Your task to perform on an android device: open app "Gmail" (install if not already installed) and enter user name: "undecidable@inbox.com" and password: "discouraging" Image 0: 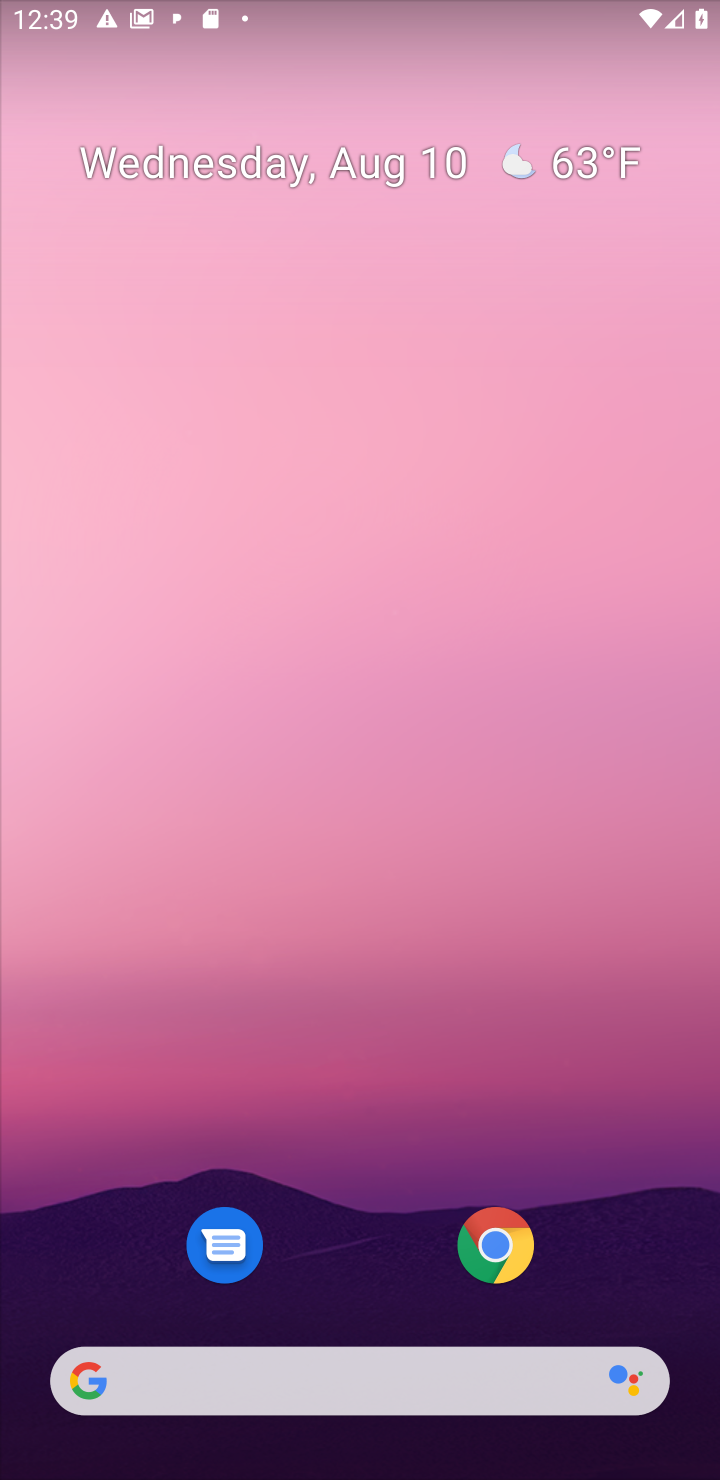
Step 0: drag from (356, 1328) to (456, 469)
Your task to perform on an android device: open app "Gmail" (install if not already installed) and enter user name: "undecidable@inbox.com" and password: "discouraging" Image 1: 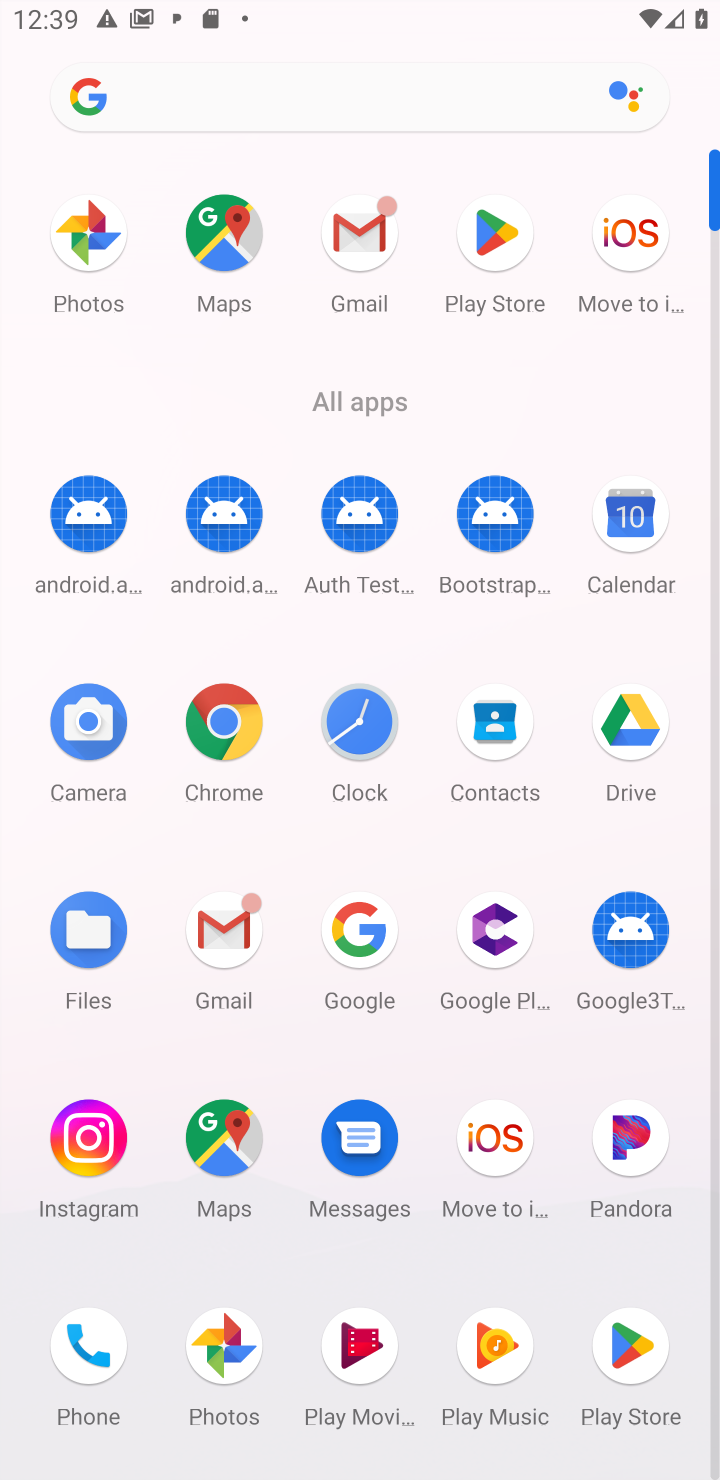
Step 1: click (372, 382)
Your task to perform on an android device: open app "Gmail" (install if not already installed) and enter user name: "undecidable@inbox.com" and password: "discouraging" Image 2: 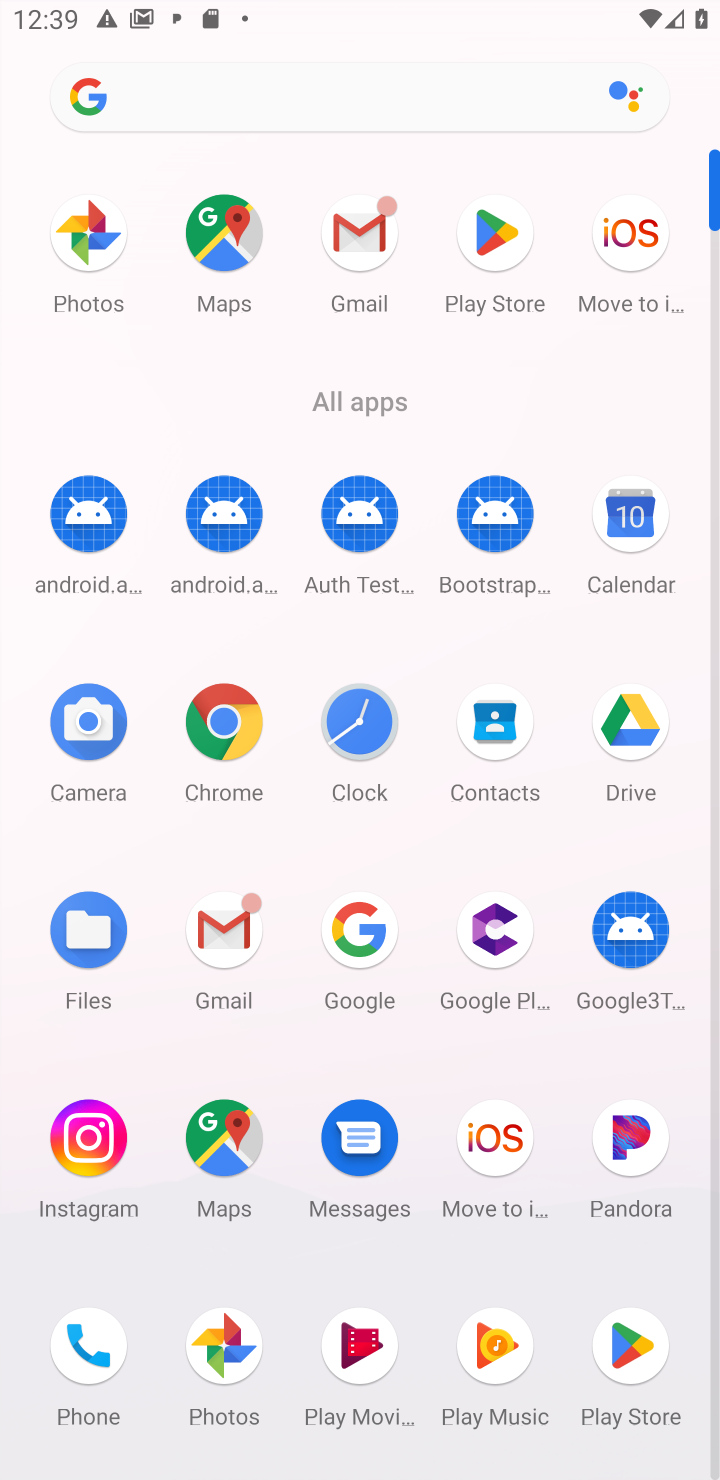
Step 2: click (348, 243)
Your task to perform on an android device: open app "Gmail" (install if not already installed) and enter user name: "undecidable@inbox.com" and password: "discouraging" Image 3: 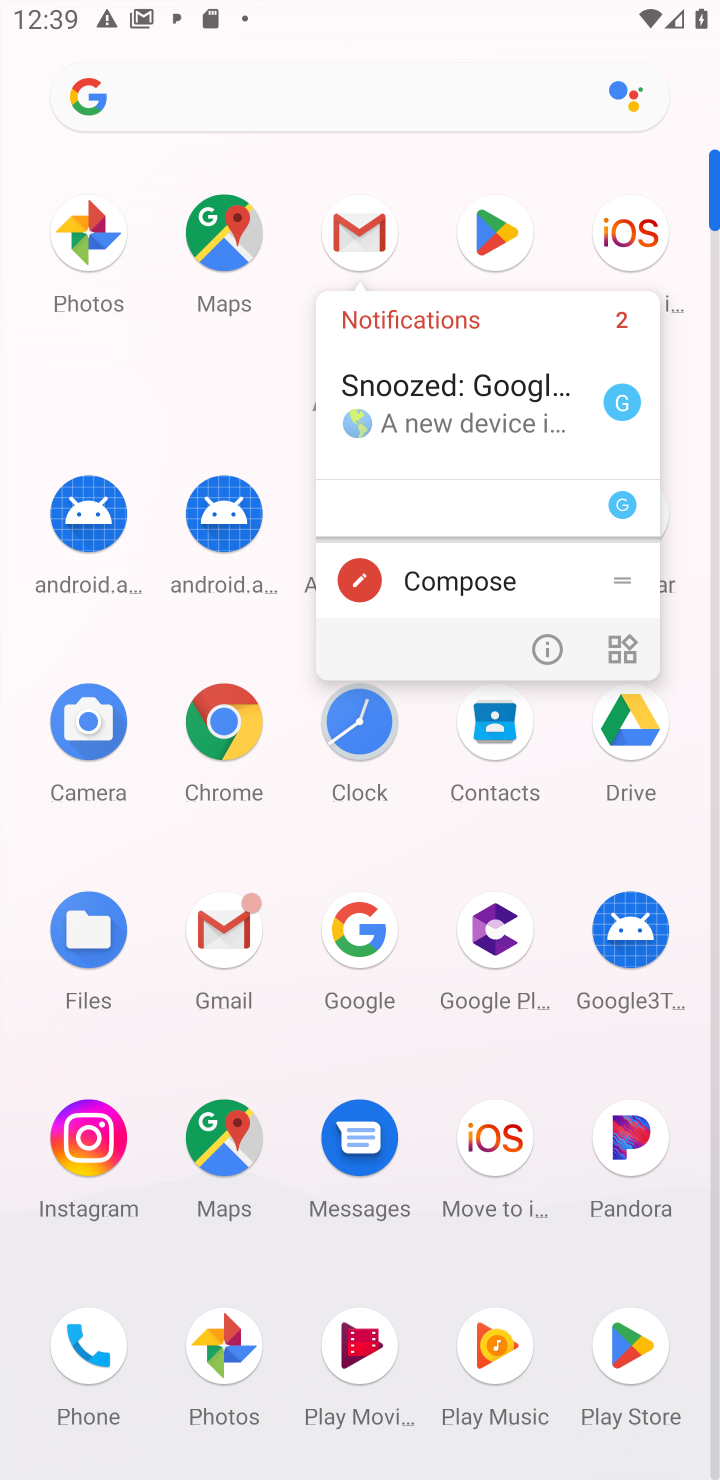
Step 3: click (338, 220)
Your task to perform on an android device: open app "Gmail" (install if not already installed) and enter user name: "undecidable@inbox.com" and password: "discouraging" Image 4: 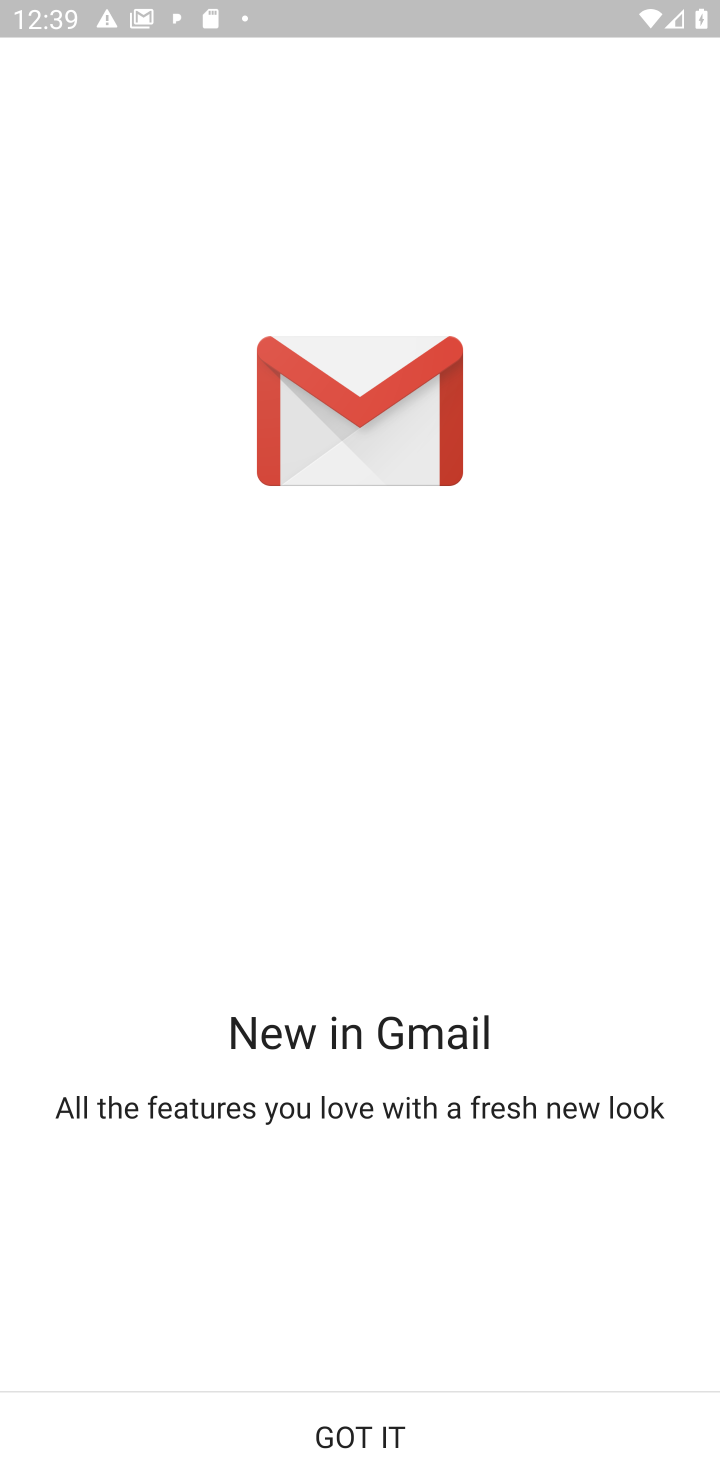
Step 4: click (397, 1416)
Your task to perform on an android device: open app "Gmail" (install if not already installed) and enter user name: "undecidable@inbox.com" and password: "discouraging" Image 5: 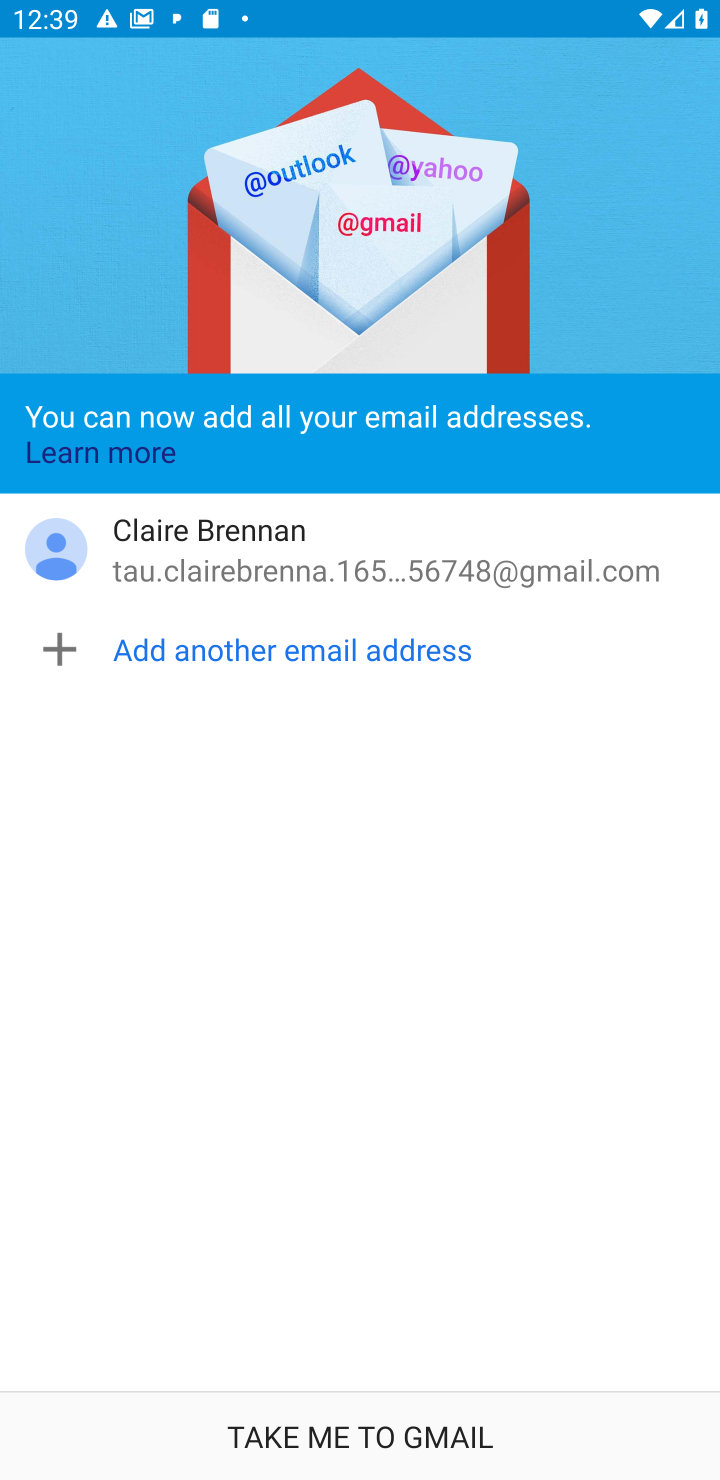
Step 5: click (310, 1448)
Your task to perform on an android device: open app "Gmail" (install if not already installed) and enter user name: "undecidable@inbox.com" and password: "discouraging" Image 6: 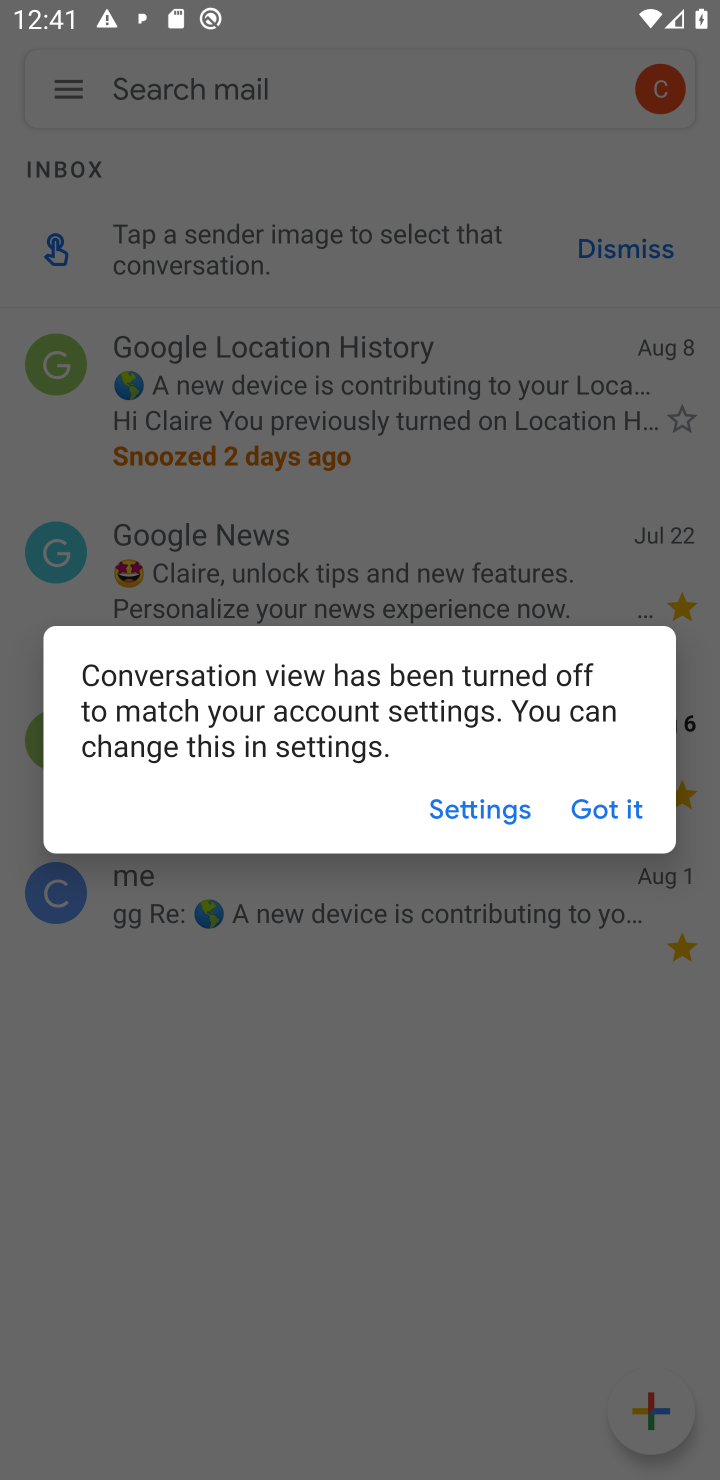
Step 6: task complete